Your task to perform on an android device: Go to battery settings Image 0: 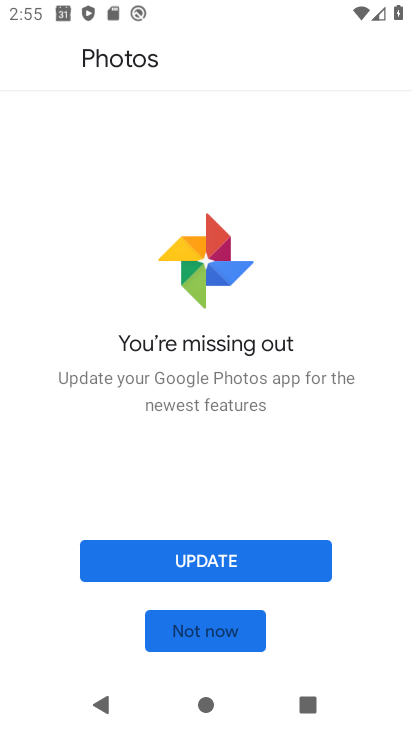
Step 0: drag from (242, 286) to (215, 599)
Your task to perform on an android device: Go to battery settings Image 1: 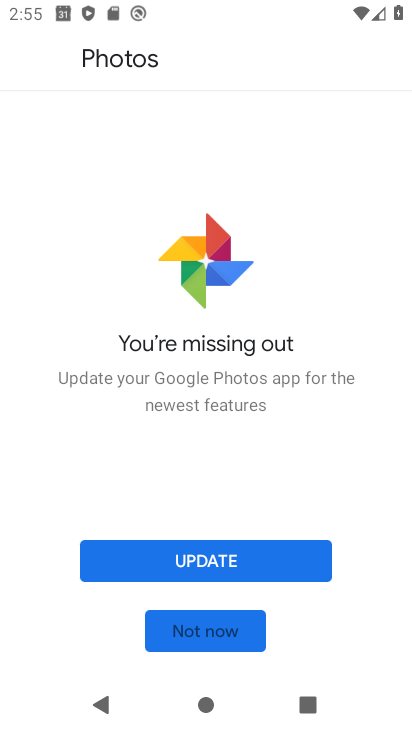
Step 1: click (183, 643)
Your task to perform on an android device: Go to battery settings Image 2: 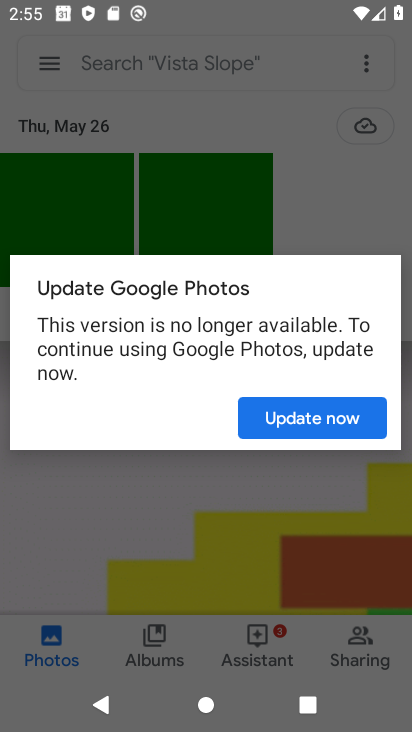
Step 2: drag from (260, 12) to (183, 648)
Your task to perform on an android device: Go to battery settings Image 3: 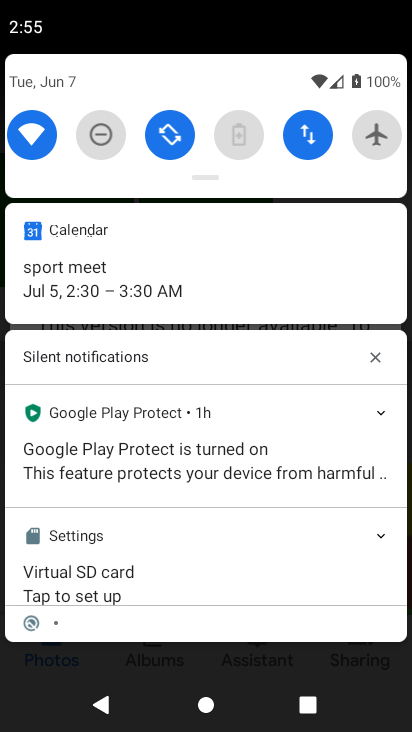
Step 3: click (249, 134)
Your task to perform on an android device: Go to battery settings Image 4: 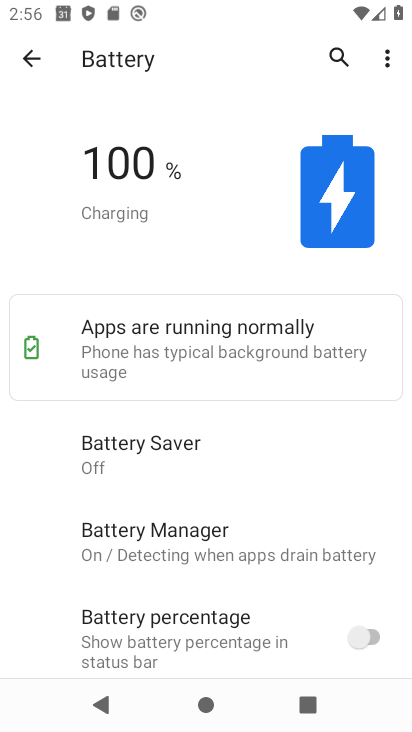
Step 4: task complete